Your task to perform on an android device: empty trash in the gmail app Image 0: 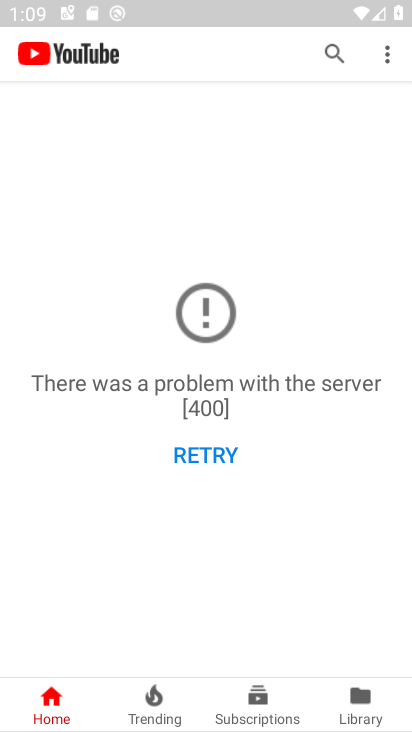
Step 0: press back button
Your task to perform on an android device: empty trash in the gmail app Image 1: 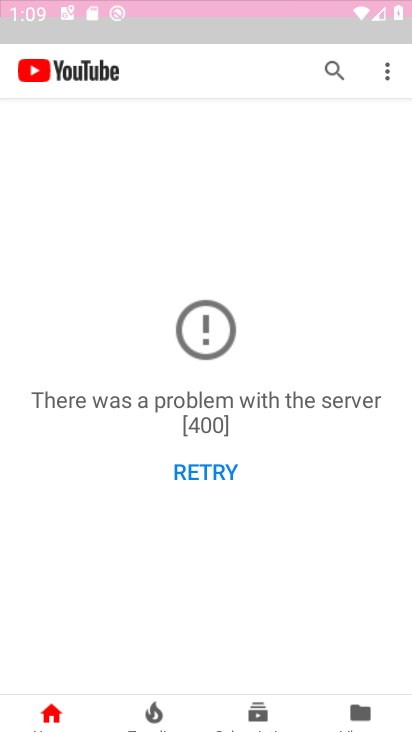
Step 1: press home button
Your task to perform on an android device: empty trash in the gmail app Image 2: 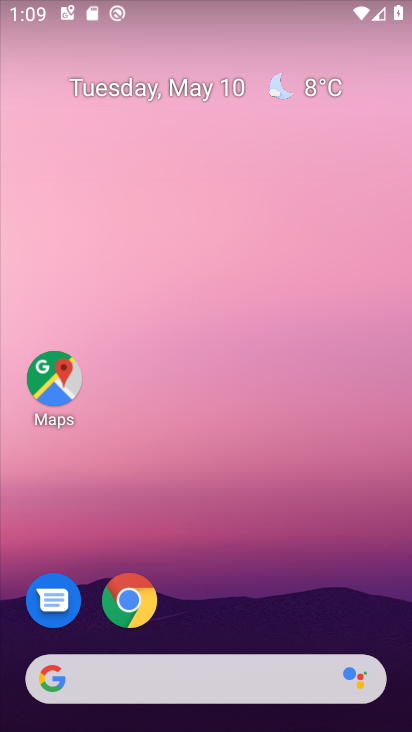
Step 2: drag from (179, 662) to (284, 141)
Your task to perform on an android device: empty trash in the gmail app Image 3: 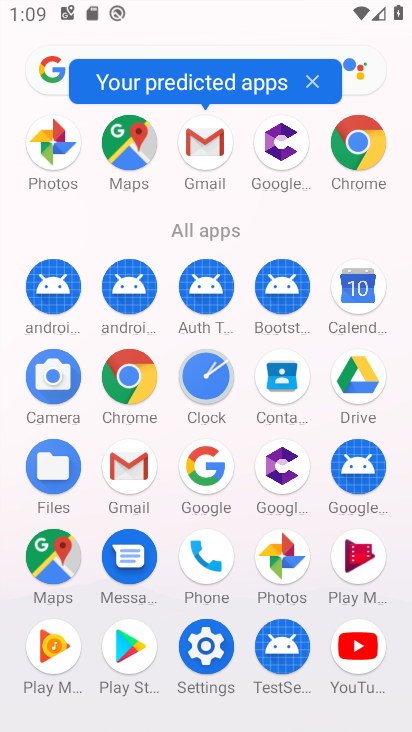
Step 3: click (136, 471)
Your task to perform on an android device: empty trash in the gmail app Image 4: 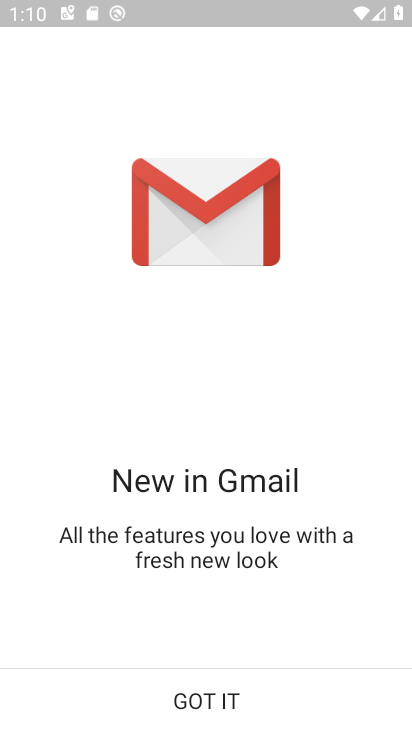
Step 4: click (267, 690)
Your task to perform on an android device: empty trash in the gmail app Image 5: 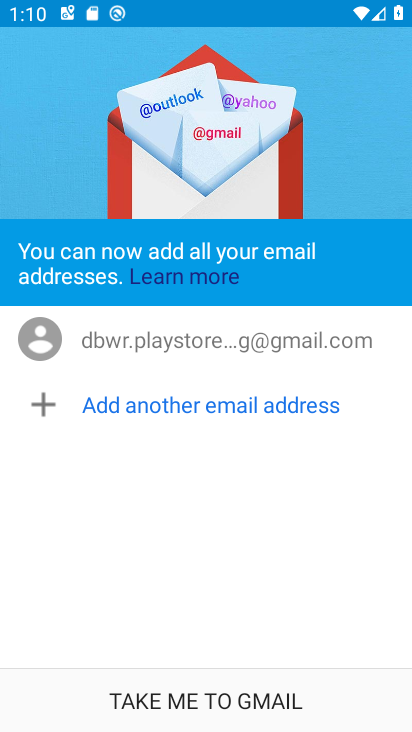
Step 5: click (253, 702)
Your task to perform on an android device: empty trash in the gmail app Image 6: 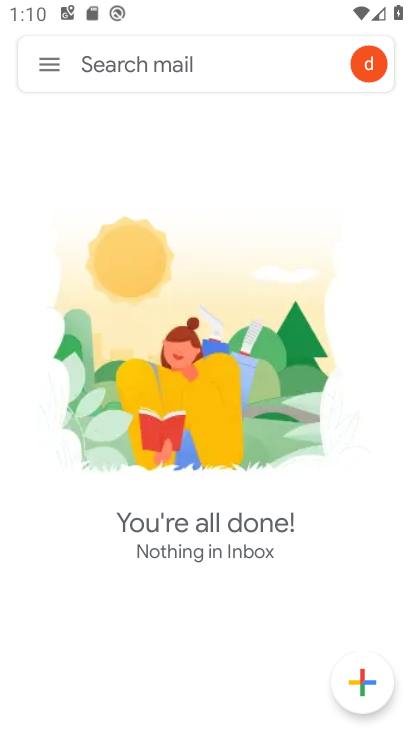
Step 6: click (54, 66)
Your task to perform on an android device: empty trash in the gmail app Image 7: 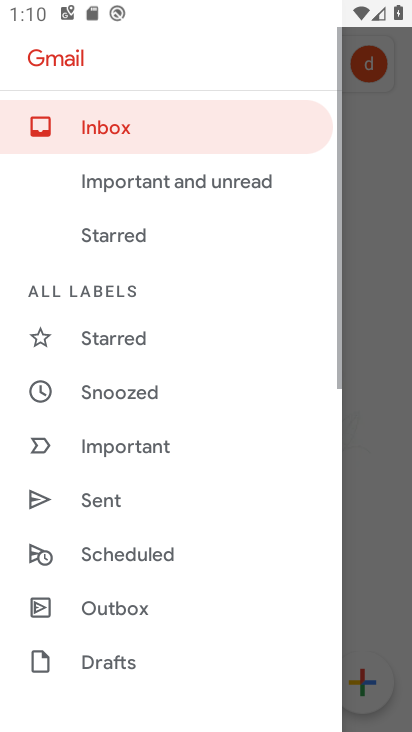
Step 7: drag from (135, 628) to (210, 389)
Your task to perform on an android device: empty trash in the gmail app Image 8: 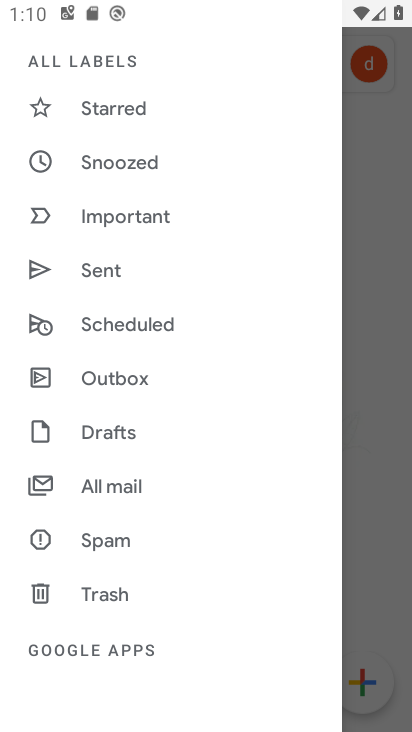
Step 8: click (158, 607)
Your task to perform on an android device: empty trash in the gmail app Image 9: 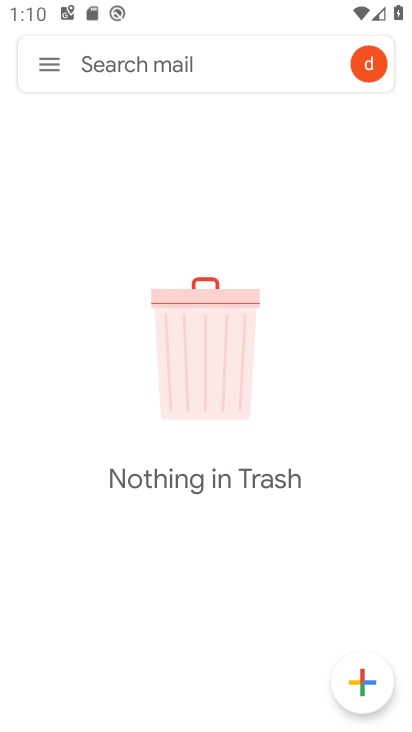
Step 9: task complete